Your task to perform on an android device: Go to Amazon Image 0: 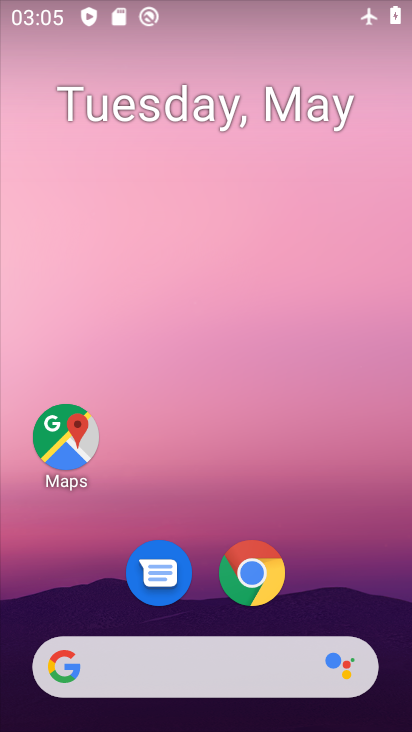
Step 0: click (257, 575)
Your task to perform on an android device: Go to Amazon Image 1: 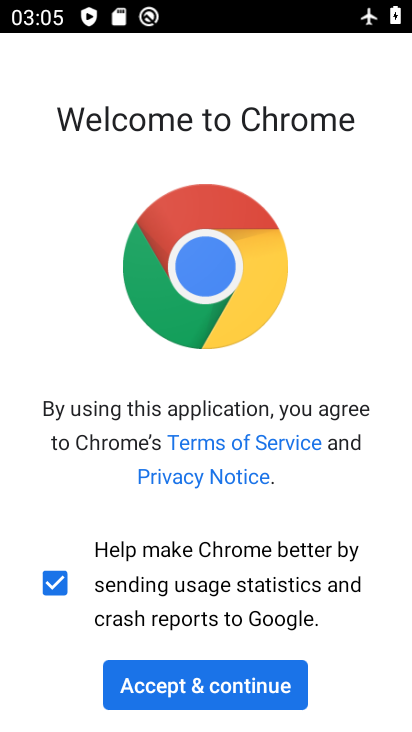
Step 1: click (261, 686)
Your task to perform on an android device: Go to Amazon Image 2: 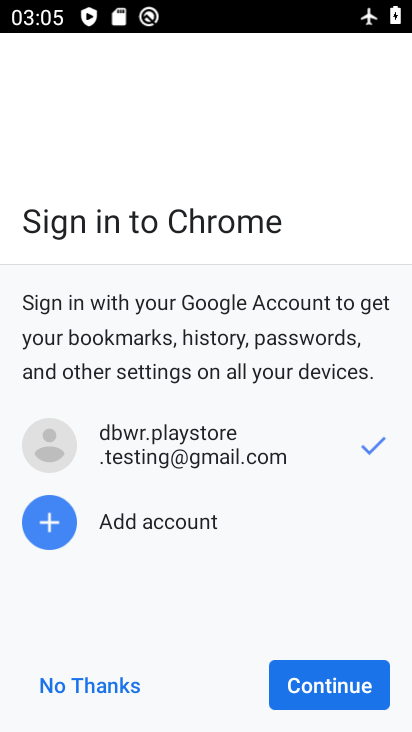
Step 2: click (342, 694)
Your task to perform on an android device: Go to Amazon Image 3: 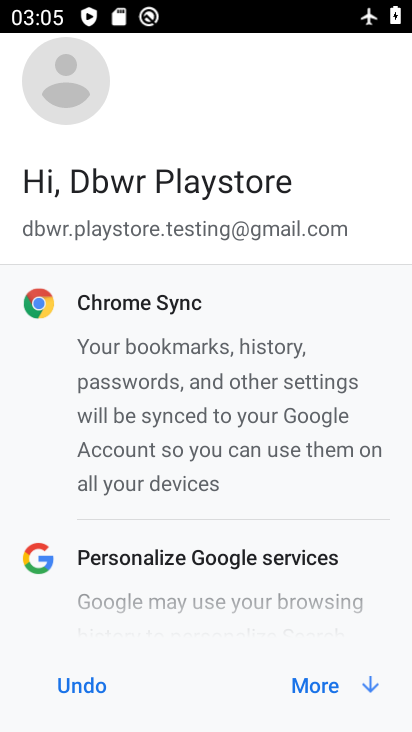
Step 3: click (333, 687)
Your task to perform on an android device: Go to Amazon Image 4: 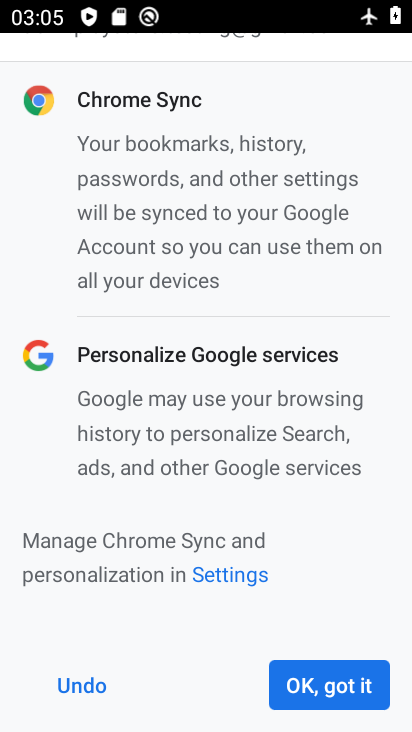
Step 4: click (333, 687)
Your task to perform on an android device: Go to Amazon Image 5: 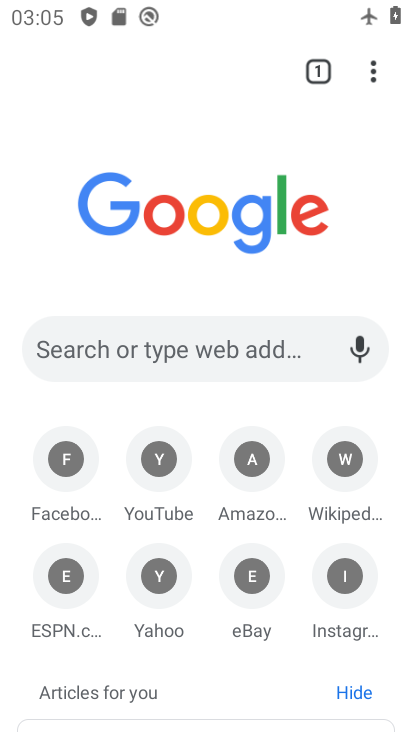
Step 5: click (239, 445)
Your task to perform on an android device: Go to Amazon Image 6: 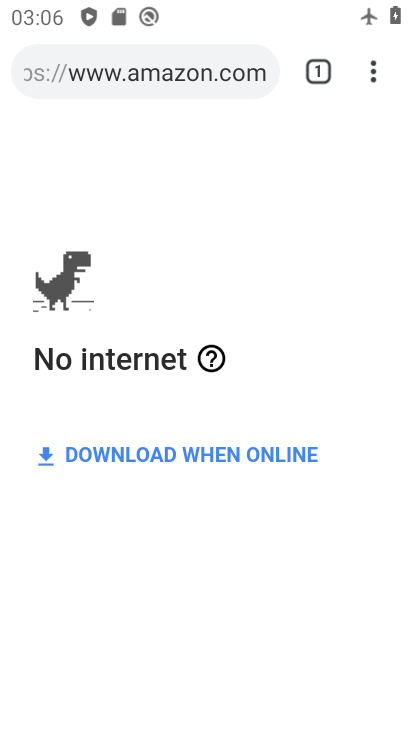
Step 6: drag from (357, 5) to (270, 548)
Your task to perform on an android device: Go to Amazon Image 7: 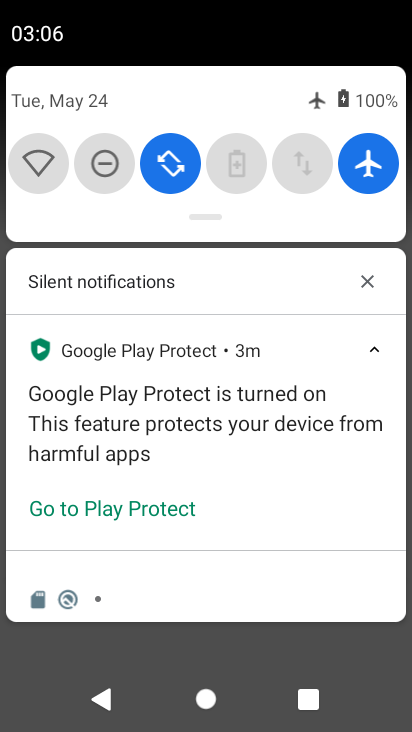
Step 7: click (364, 166)
Your task to perform on an android device: Go to Amazon Image 8: 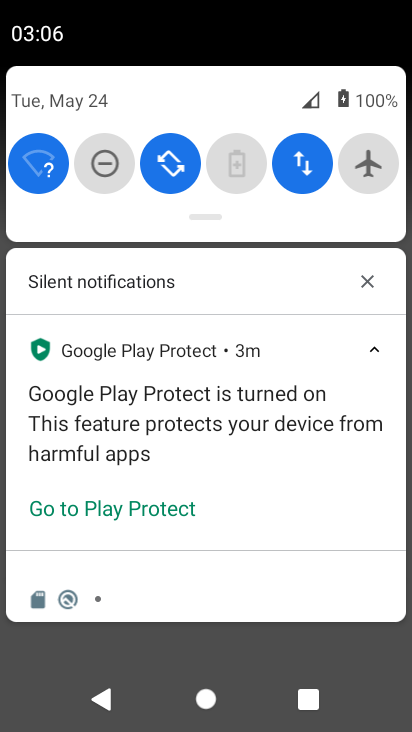
Step 8: click (205, 644)
Your task to perform on an android device: Go to Amazon Image 9: 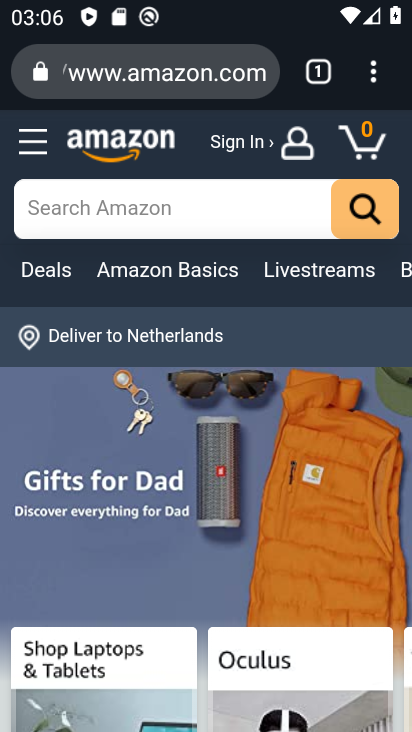
Step 9: task complete